Your task to perform on an android device: Open Google Chrome and click the shortcut for Amazon.com Image 0: 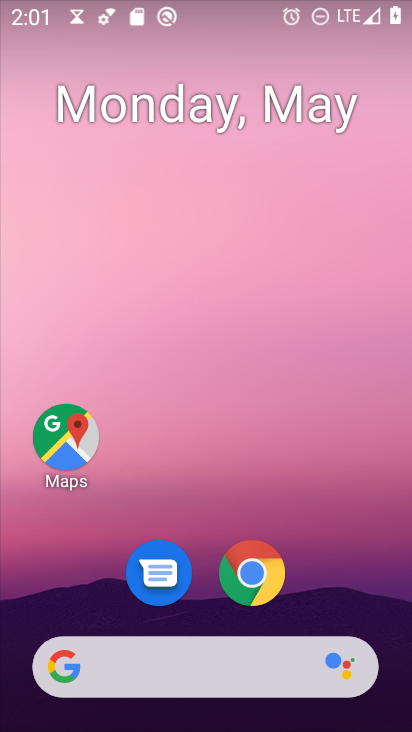
Step 0: drag from (268, 651) to (262, 26)
Your task to perform on an android device: Open Google Chrome and click the shortcut for Amazon.com Image 1: 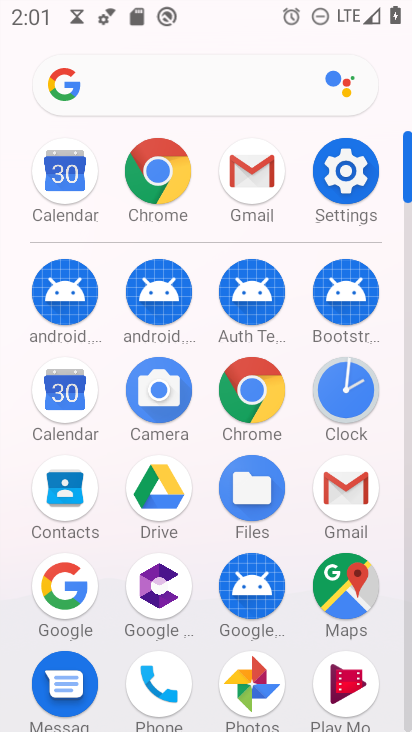
Step 1: drag from (298, 655) to (265, 234)
Your task to perform on an android device: Open Google Chrome and click the shortcut for Amazon.com Image 2: 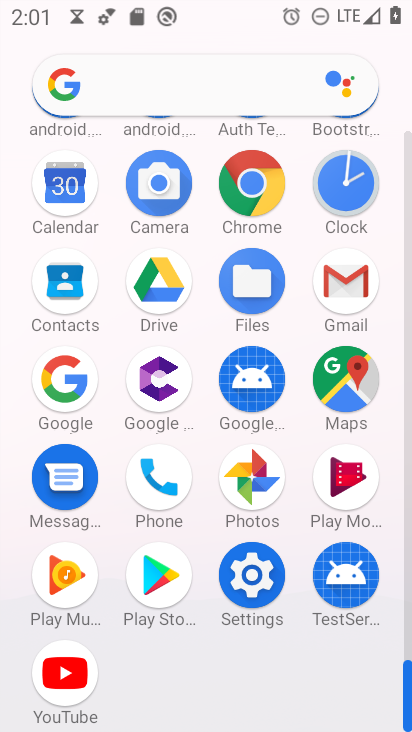
Step 2: drag from (299, 312) to (299, 720)
Your task to perform on an android device: Open Google Chrome and click the shortcut for Amazon.com Image 3: 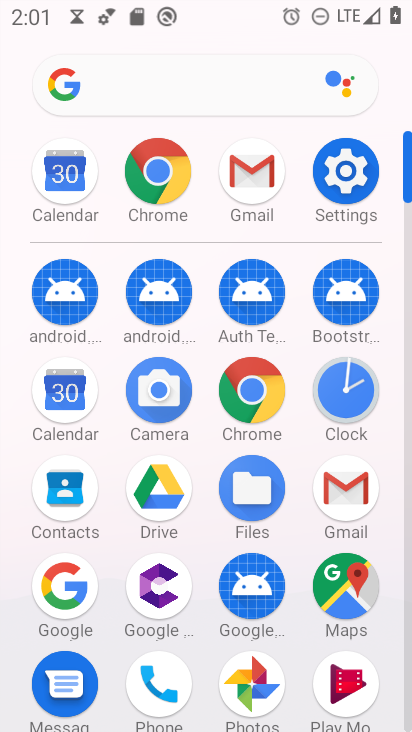
Step 3: click (254, 398)
Your task to perform on an android device: Open Google Chrome and click the shortcut for Amazon.com Image 4: 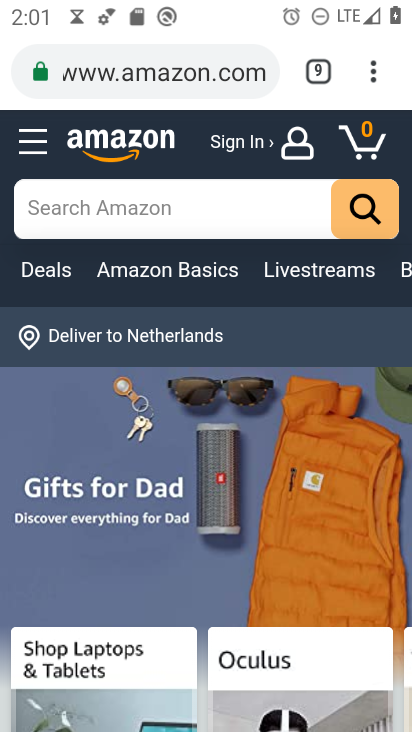
Step 4: task complete